Your task to perform on an android device: Search for sushi restaurants on Maps Image 0: 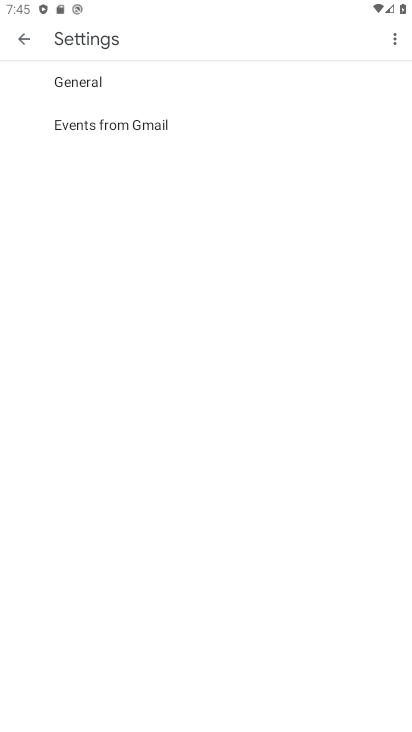
Step 0: press home button
Your task to perform on an android device: Search for sushi restaurants on Maps Image 1: 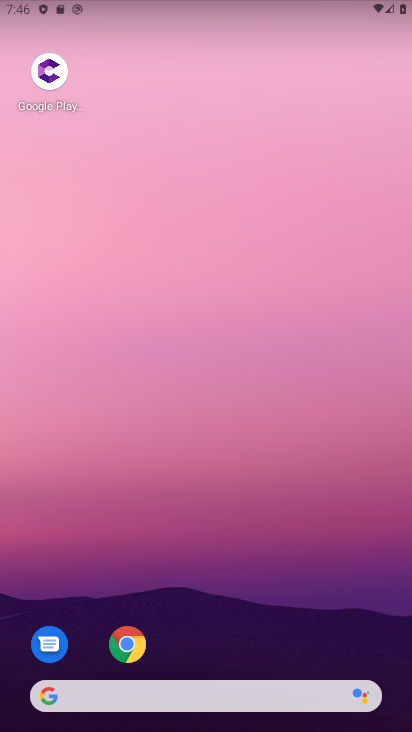
Step 1: drag from (227, 668) to (399, 77)
Your task to perform on an android device: Search for sushi restaurants on Maps Image 2: 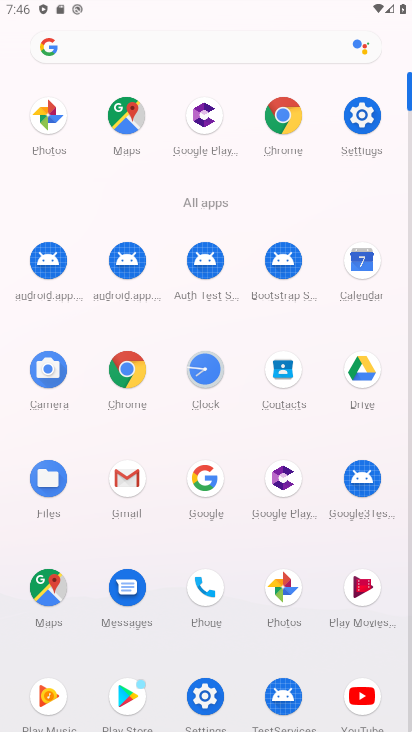
Step 2: click (24, 592)
Your task to perform on an android device: Search for sushi restaurants on Maps Image 3: 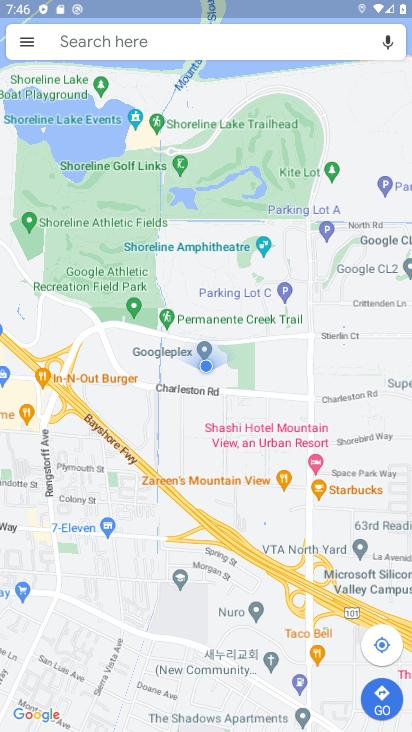
Step 3: click (153, 38)
Your task to perform on an android device: Search for sushi restaurants on Maps Image 4: 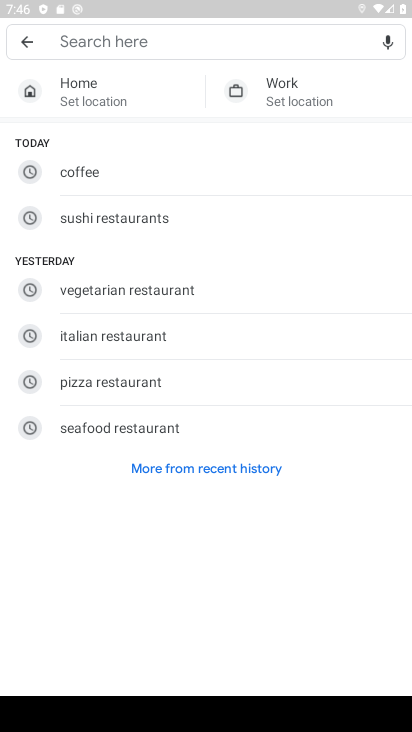
Step 4: type "sushi restaurants"
Your task to perform on an android device: Search for sushi restaurants on Maps Image 5: 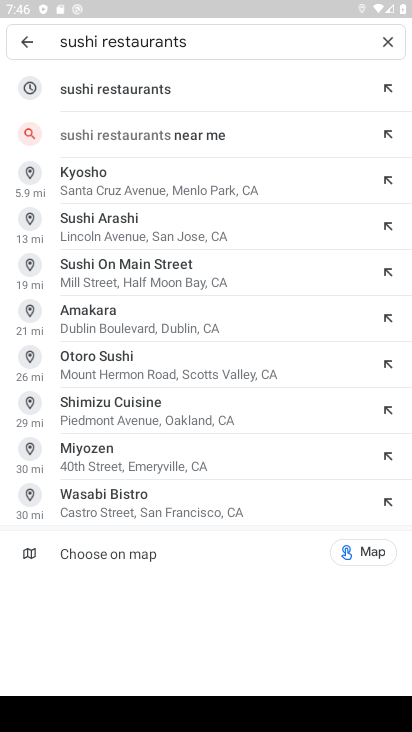
Step 5: click (174, 100)
Your task to perform on an android device: Search for sushi restaurants on Maps Image 6: 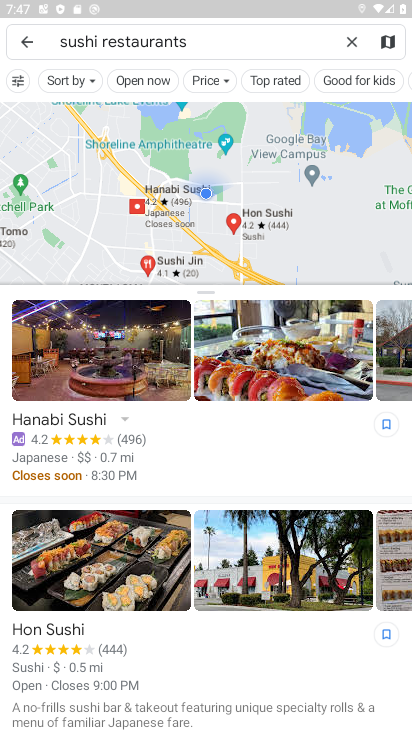
Step 6: task complete